Your task to perform on an android device: toggle notification dots Image 0: 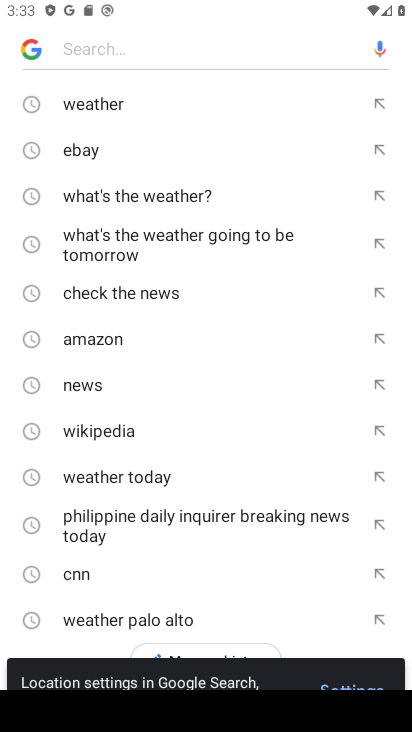
Step 0: press home button
Your task to perform on an android device: toggle notification dots Image 1: 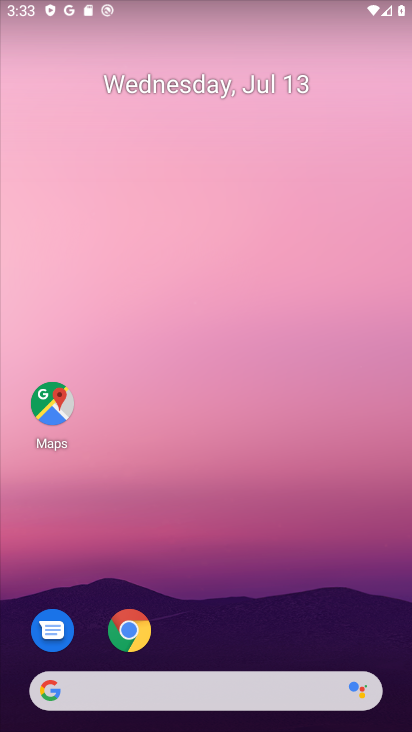
Step 1: click (206, 636)
Your task to perform on an android device: toggle notification dots Image 2: 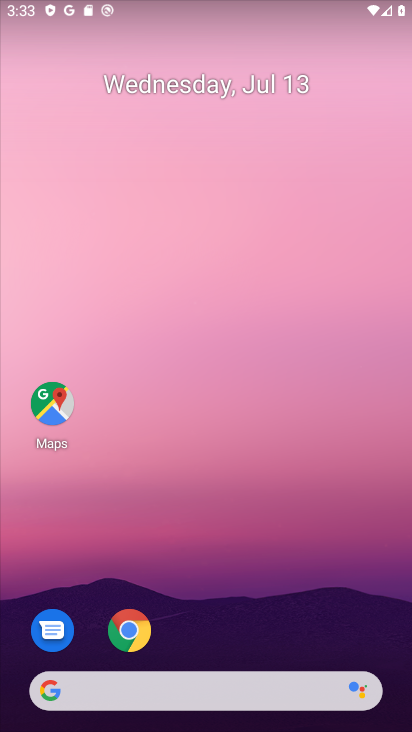
Step 2: drag from (175, 381) to (188, 19)
Your task to perform on an android device: toggle notification dots Image 3: 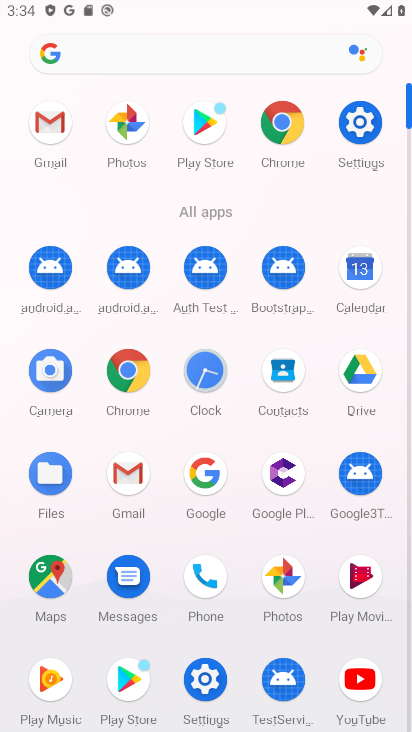
Step 3: click (367, 122)
Your task to perform on an android device: toggle notification dots Image 4: 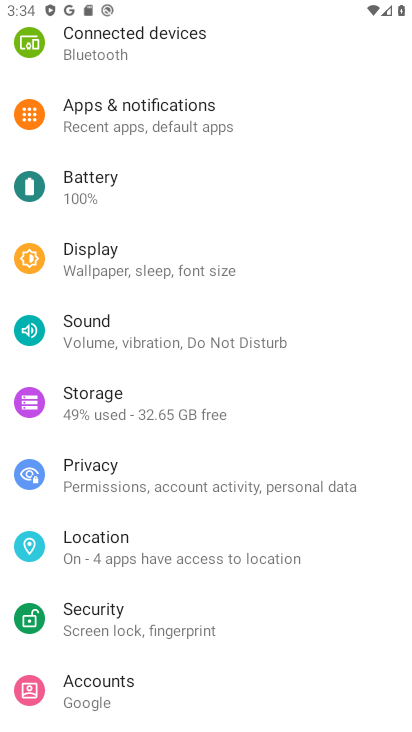
Step 4: click (145, 105)
Your task to perform on an android device: toggle notification dots Image 5: 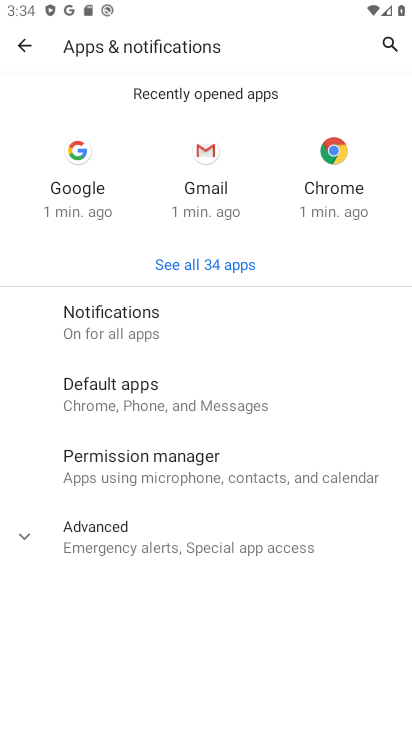
Step 5: click (105, 321)
Your task to perform on an android device: toggle notification dots Image 6: 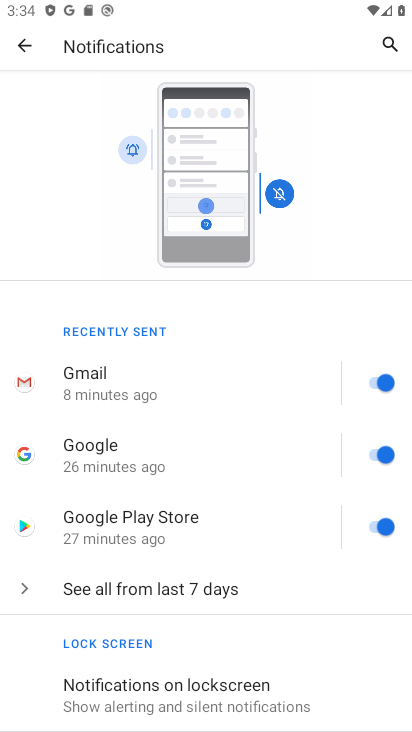
Step 6: drag from (255, 670) to (276, 385)
Your task to perform on an android device: toggle notification dots Image 7: 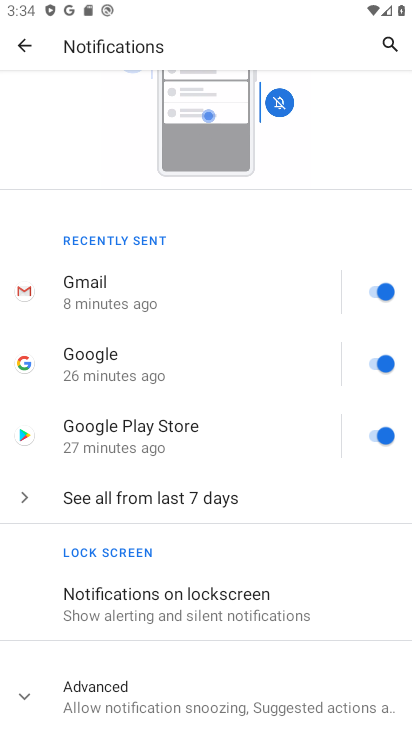
Step 7: click (98, 692)
Your task to perform on an android device: toggle notification dots Image 8: 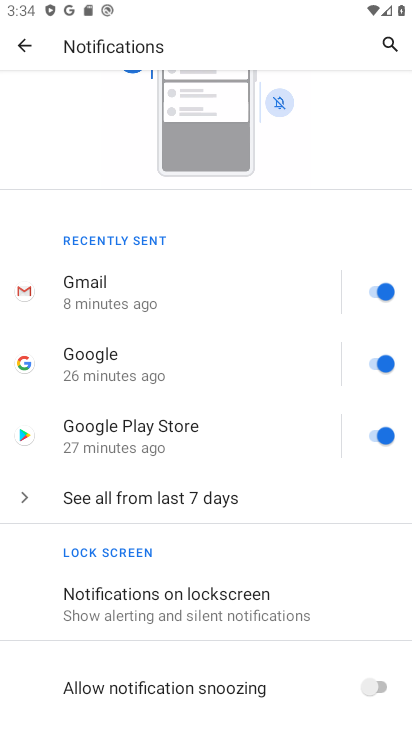
Step 8: click (192, 606)
Your task to perform on an android device: toggle notification dots Image 9: 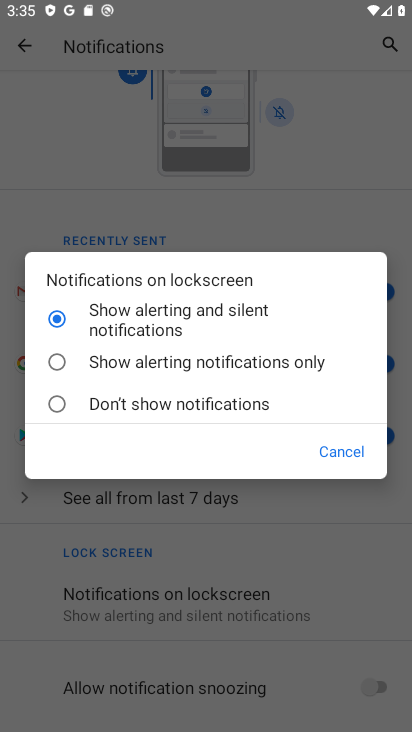
Step 9: click (333, 449)
Your task to perform on an android device: toggle notification dots Image 10: 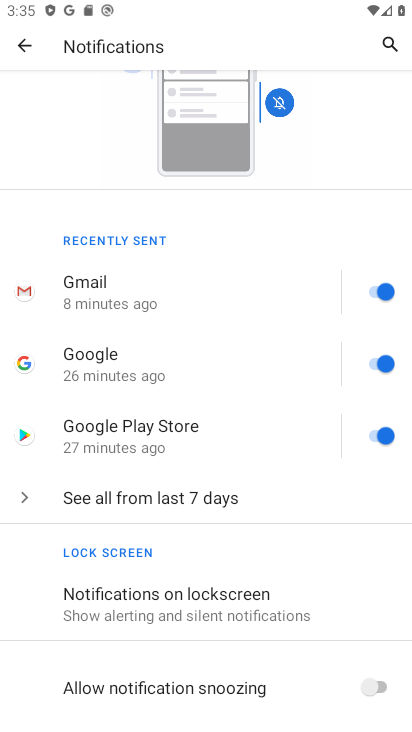
Step 10: drag from (218, 607) to (226, 300)
Your task to perform on an android device: toggle notification dots Image 11: 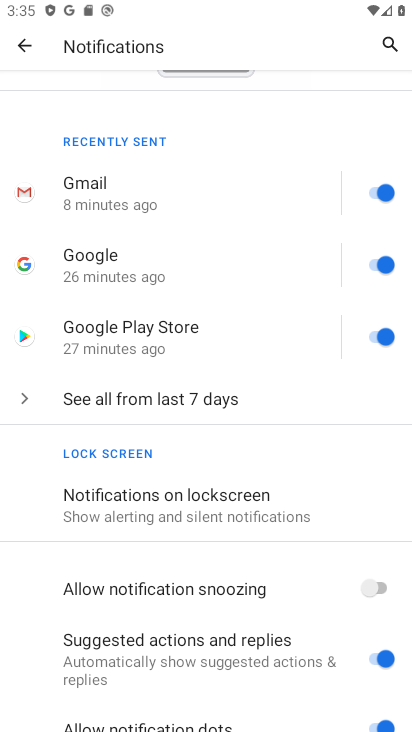
Step 11: drag from (290, 629) to (279, 341)
Your task to perform on an android device: toggle notification dots Image 12: 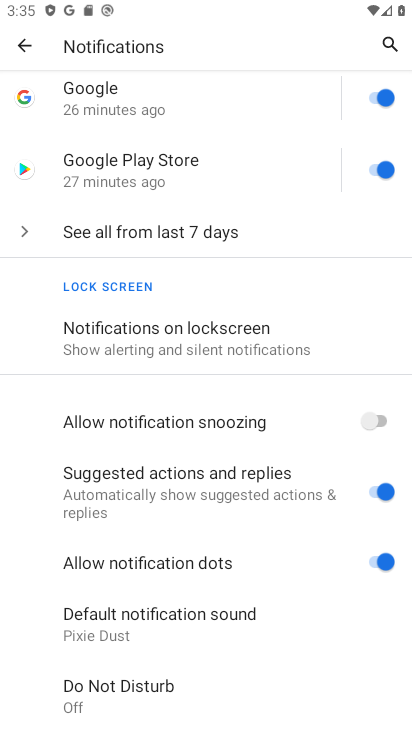
Step 12: click (381, 563)
Your task to perform on an android device: toggle notification dots Image 13: 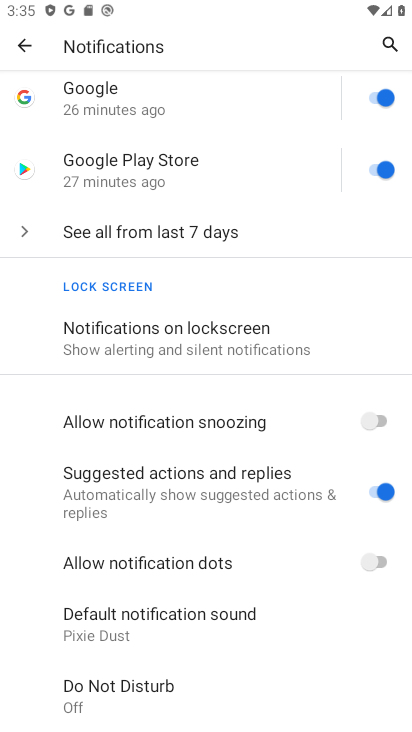
Step 13: task complete